Your task to perform on an android device: visit the assistant section in the google photos Image 0: 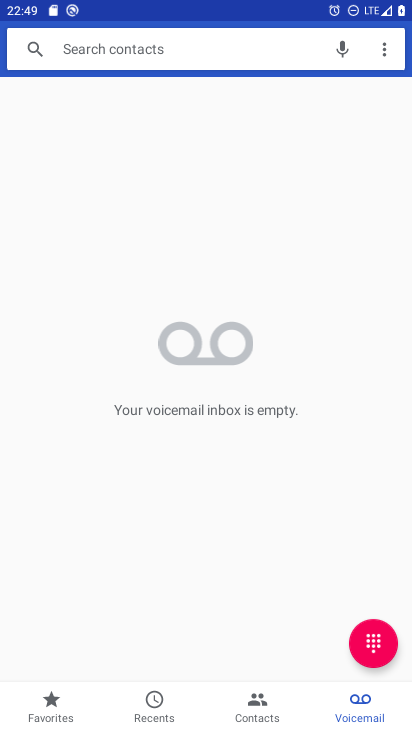
Step 0: press home button
Your task to perform on an android device: visit the assistant section in the google photos Image 1: 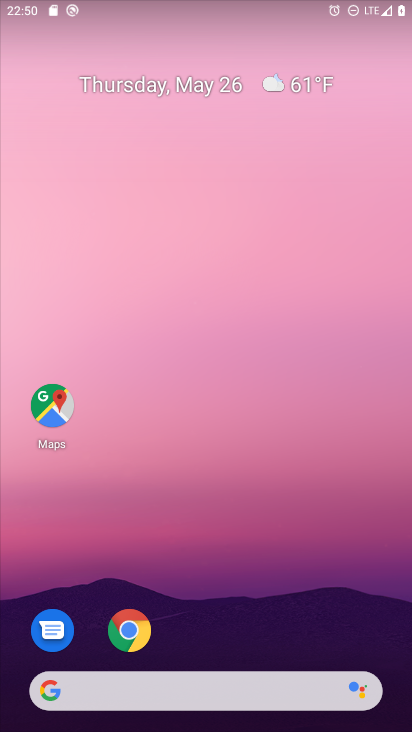
Step 1: drag from (212, 663) to (201, 52)
Your task to perform on an android device: visit the assistant section in the google photos Image 2: 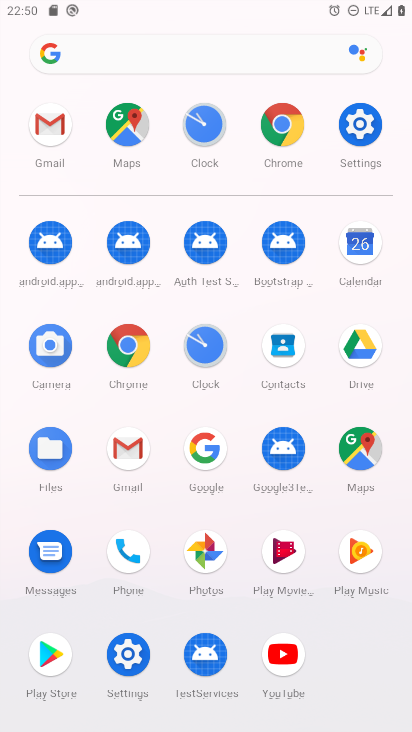
Step 2: click (209, 557)
Your task to perform on an android device: visit the assistant section in the google photos Image 3: 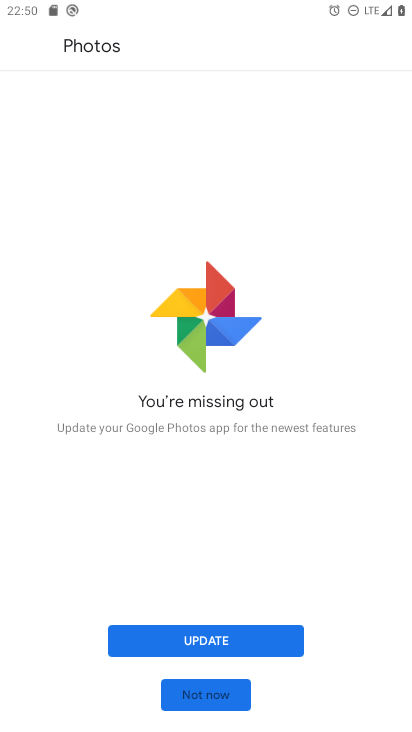
Step 3: click (176, 700)
Your task to perform on an android device: visit the assistant section in the google photos Image 4: 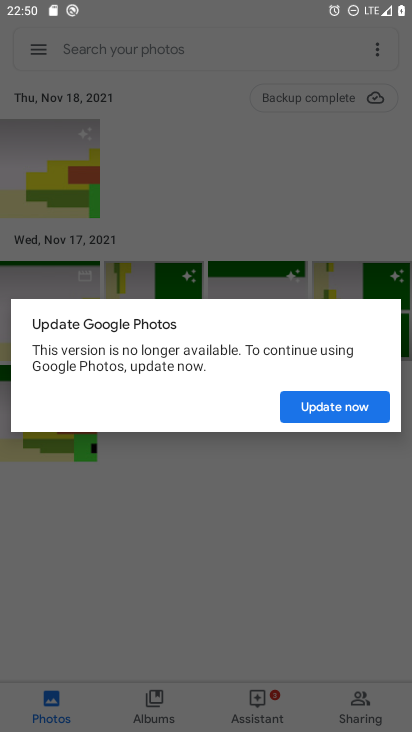
Step 4: click (315, 414)
Your task to perform on an android device: visit the assistant section in the google photos Image 5: 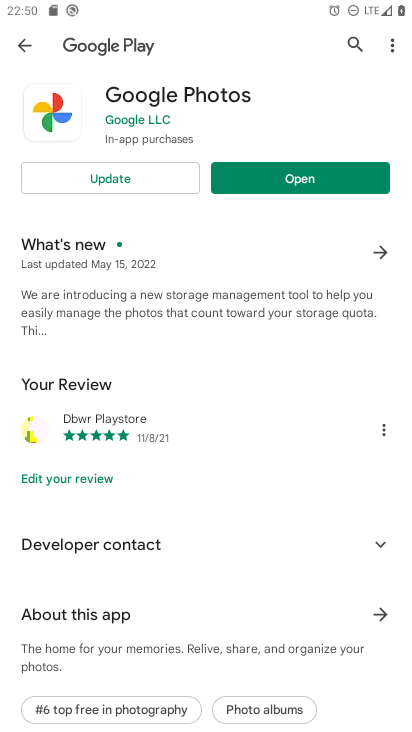
Step 5: click (260, 187)
Your task to perform on an android device: visit the assistant section in the google photos Image 6: 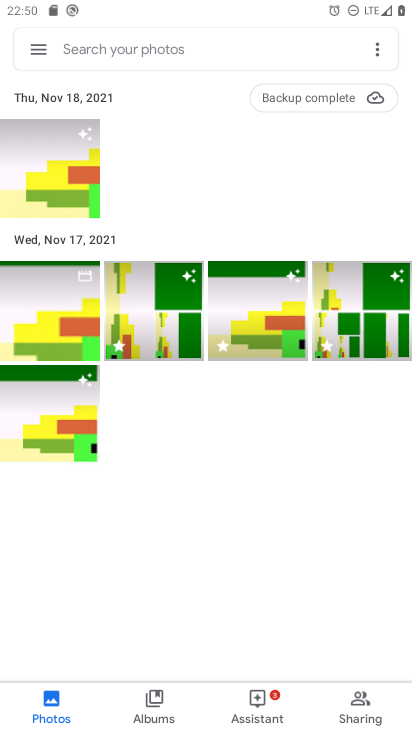
Step 6: click (248, 725)
Your task to perform on an android device: visit the assistant section in the google photos Image 7: 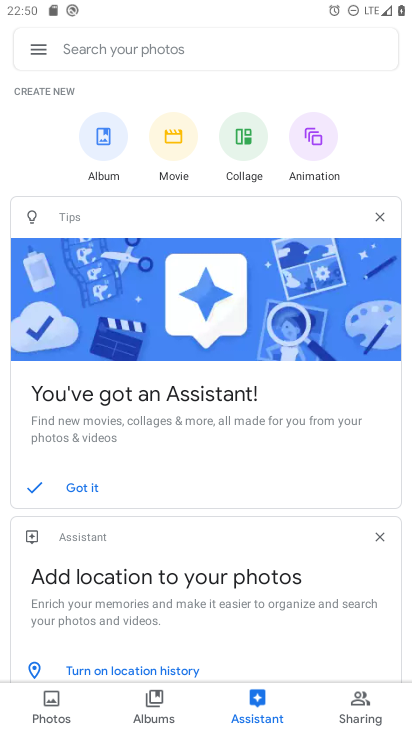
Step 7: task complete